Your task to perform on an android device: check out phone information Image 0: 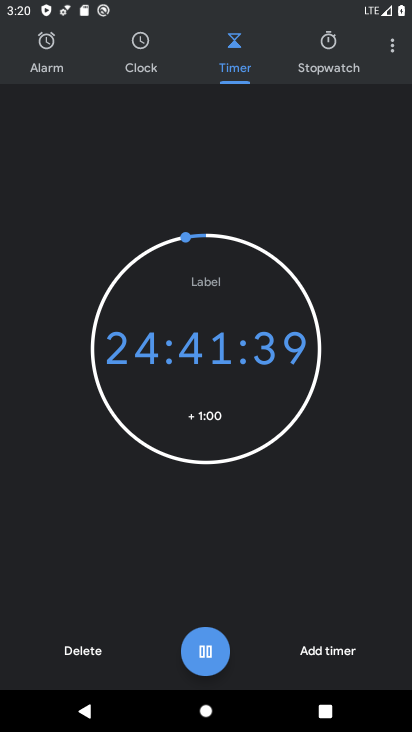
Step 0: press home button
Your task to perform on an android device: check out phone information Image 1: 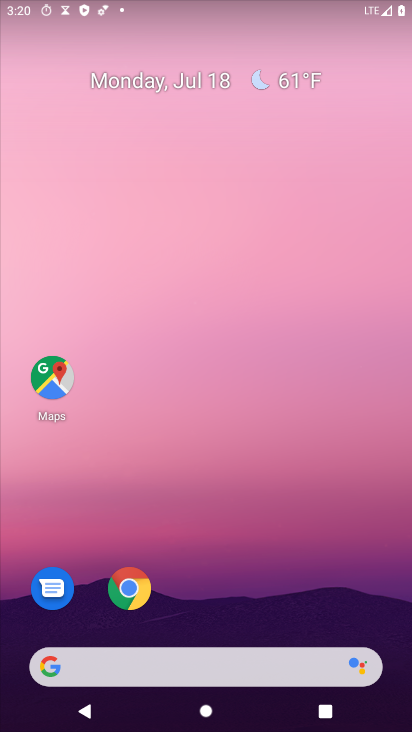
Step 1: drag from (284, 546) to (325, 43)
Your task to perform on an android device: check out phone information Image 2: 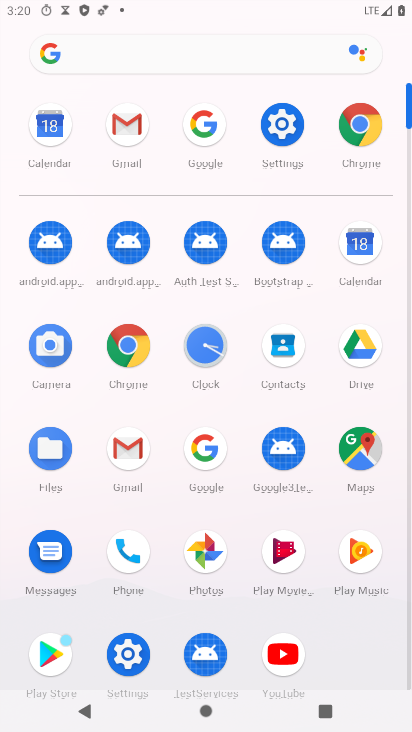
Step 2: click (276, 137)
Your task to perform on an android device: check out phone information Image 3: 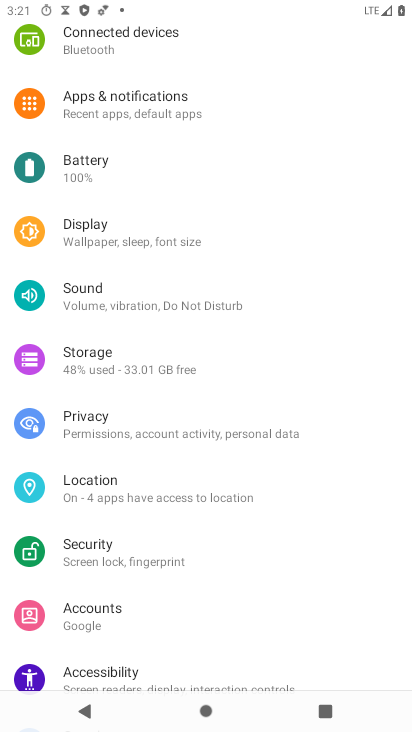
Step 3: drag from (242, 639) to (216, 141)
Your task to perform on an android device: check out phone information Image 4: 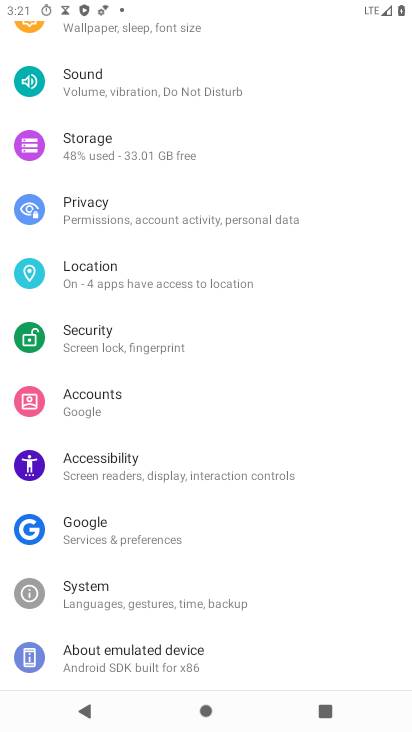
Step 4: click (117, 662)
Your task to perform on an android device: check out phone information Image 5: 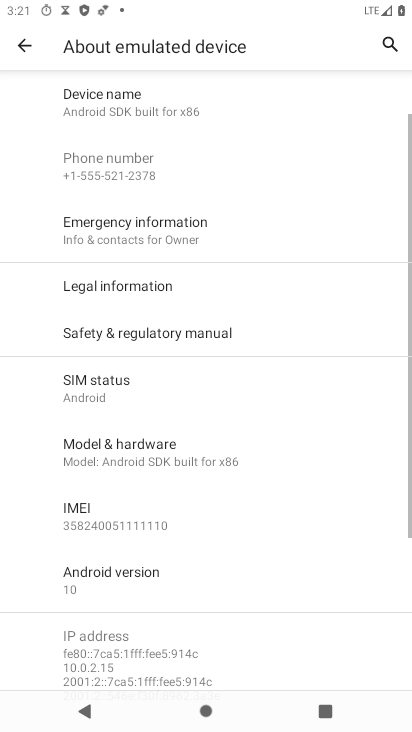
Step 5: task complete